Your task to perform on an android device: What's on my calendar tomorrow? Image 0: 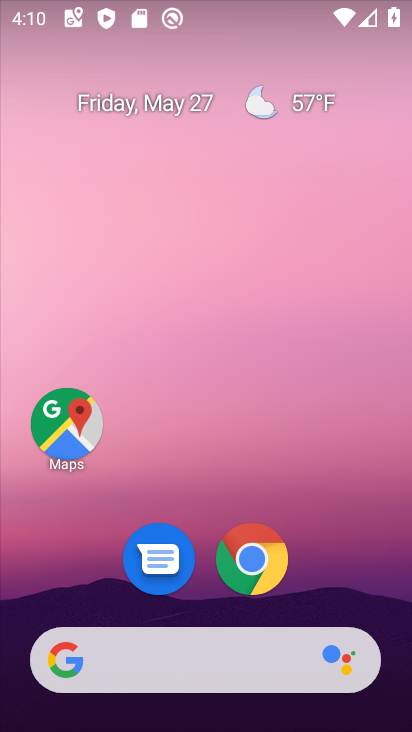
Step 0: drag from (369, 597) to (304, 60)
Your task to perform on an android device: What's on my calendar tomorrow? Image 1: 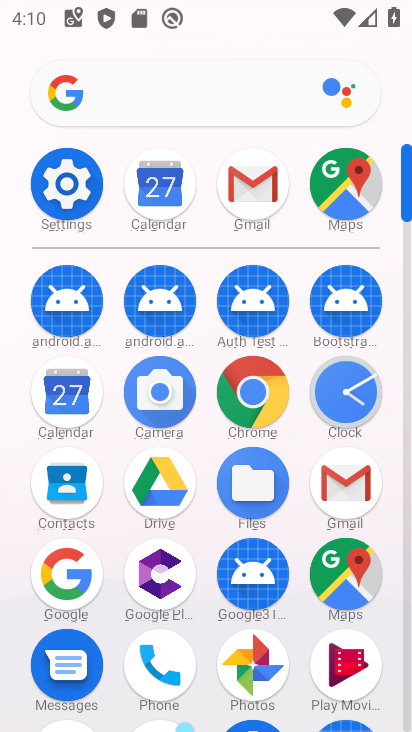
Step 1: click (64, 412)
Your task to perform on an android device: What's on my calendar tomorrow? Image 2: 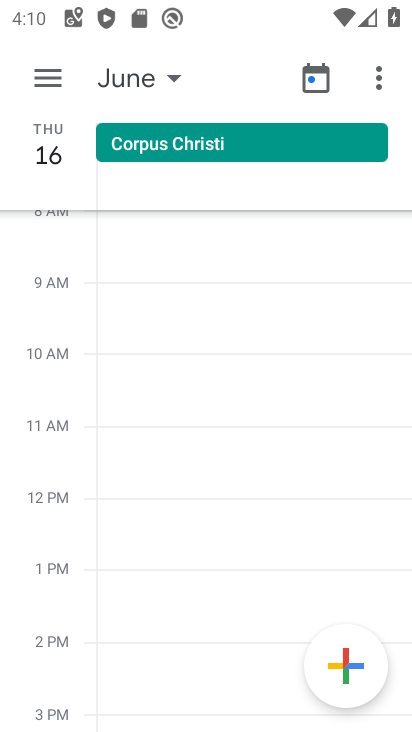
Step 2: task complete